Your task to perform on an android device: Show me recent news Image 0: 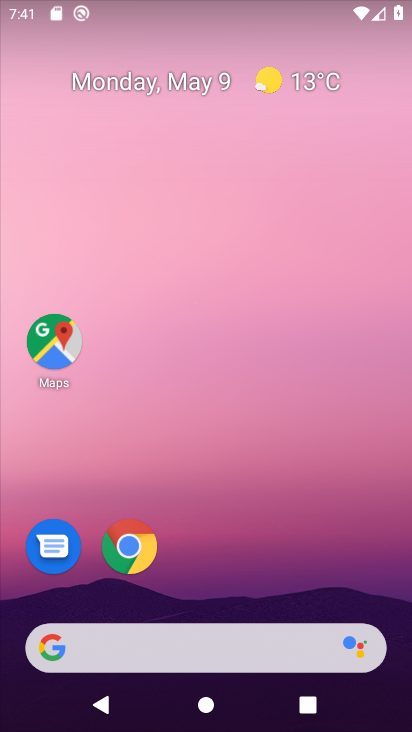
Step 0: click (137, 547)
Your task to perform on an android device: Show me recent news Image 1: 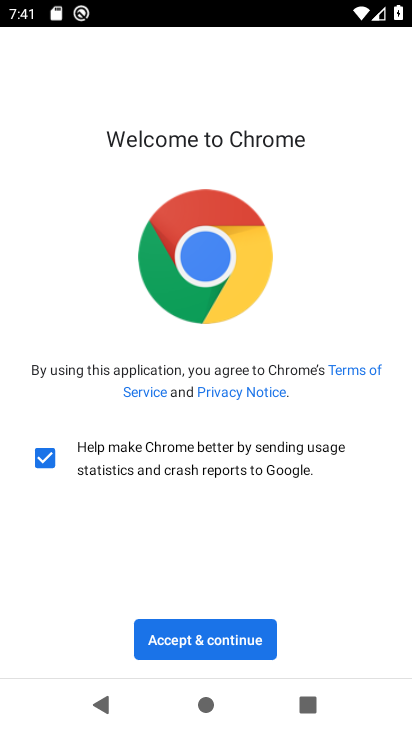
Step 1: click (211, 635)
Your task to perform on an android device: Show me recent news Image 2: 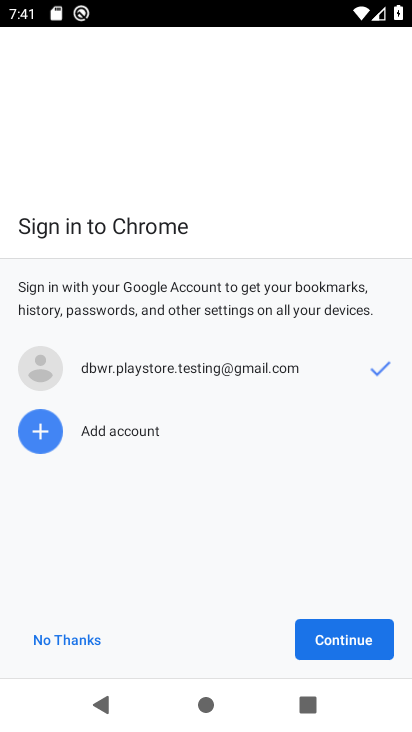
Step 2: click (358, 625)
Your task to perform on an android device: Show me recent news Image 3: 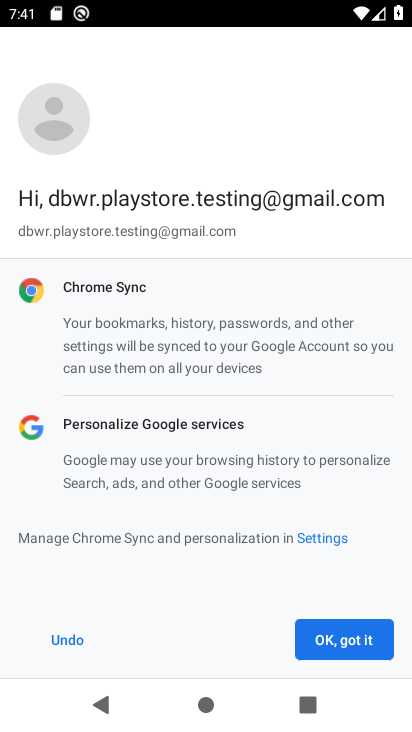
Step 3: click (368, 637)
Your task to perform on an android device: Show me recent news Image 4: 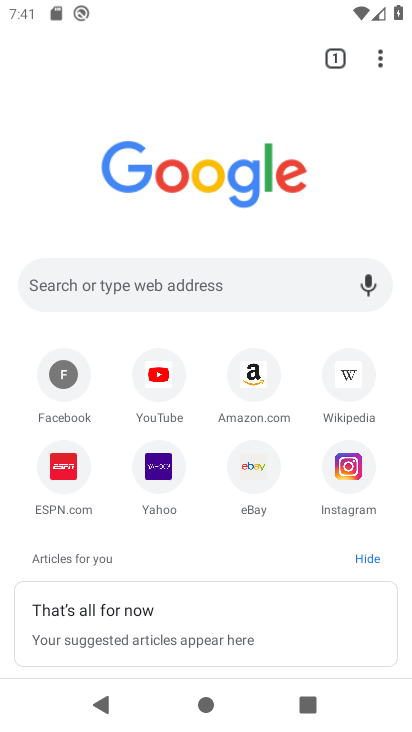
Step 4: click (134, 296)
Your task to perform on an android device: Show me recent news Image 5: 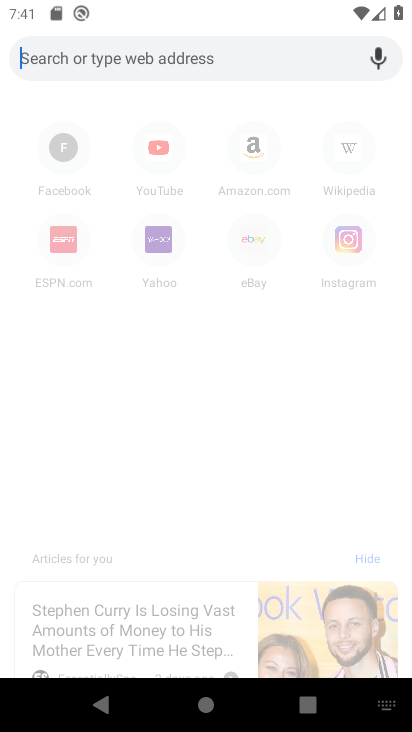
Step 5: type "recent news"
Your task to perform on an android device: Show me recent news Image 6: 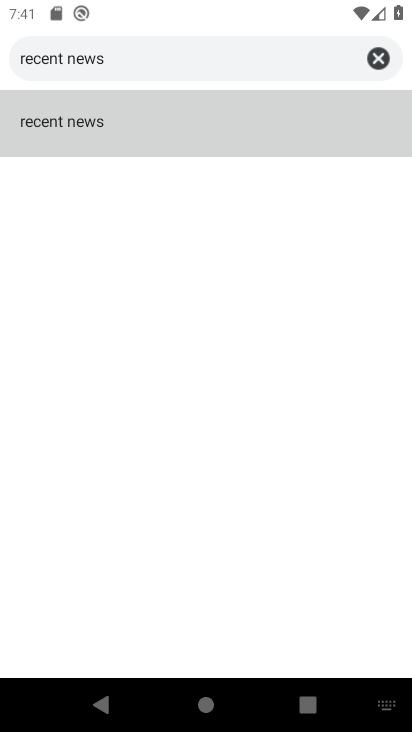
Step 6: click (92, 125)
Your task to perform on an android device: Show me recent news Image 7: 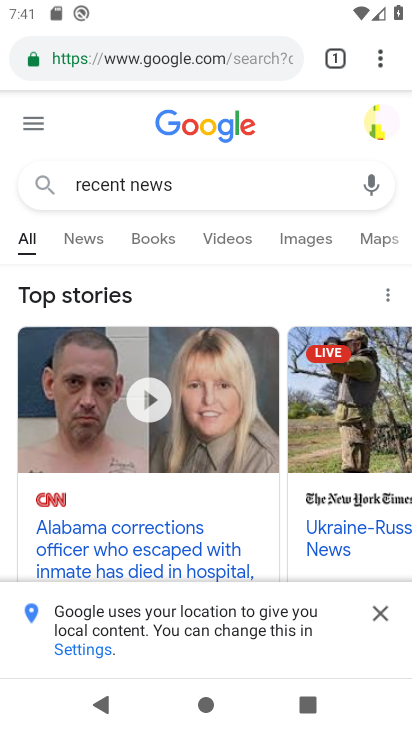
Step 7: task complete